Your task to perform on an android device: Open calendar and show me the fourth week of next month Image 0: 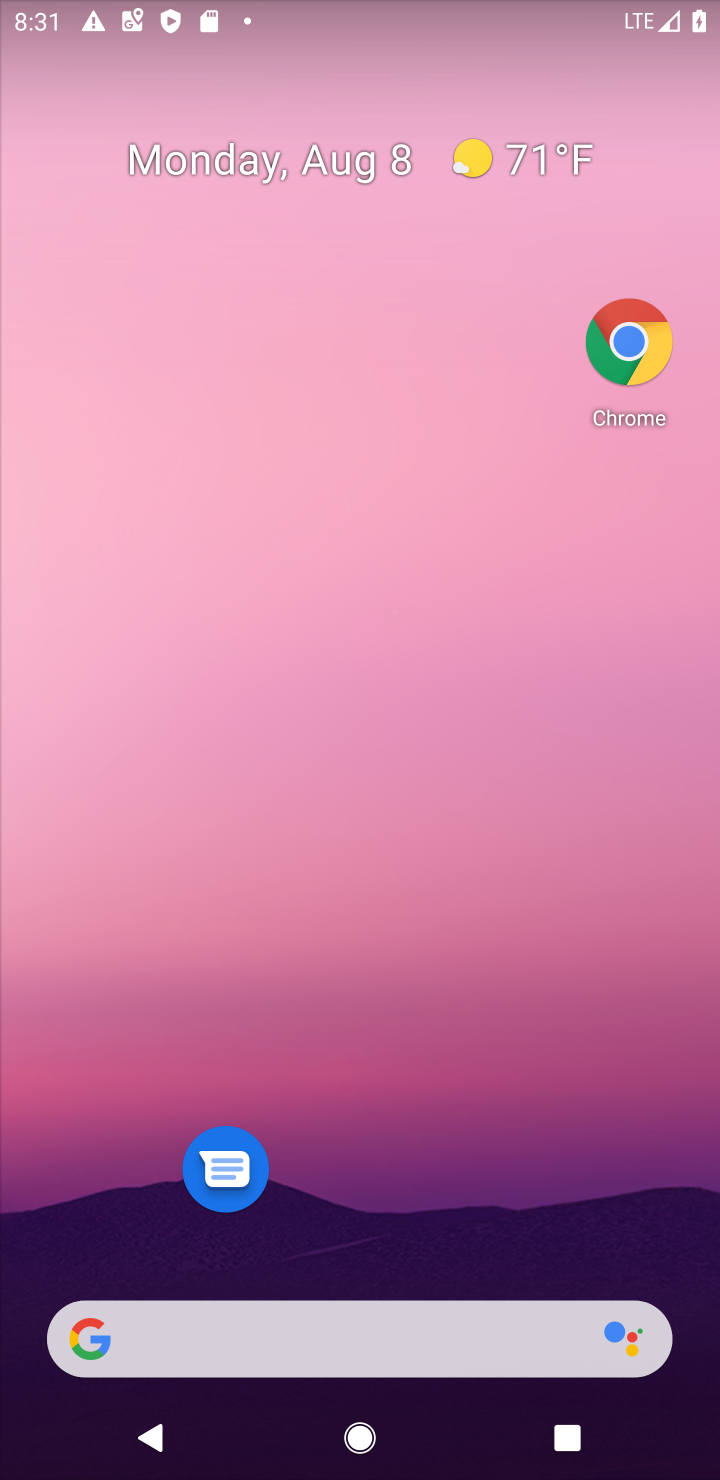
Step 0: drag from (401, 1243) to (507, 14)
Your task to perform on an android device: Open calendar and show me the fourth week of next month Image 1: 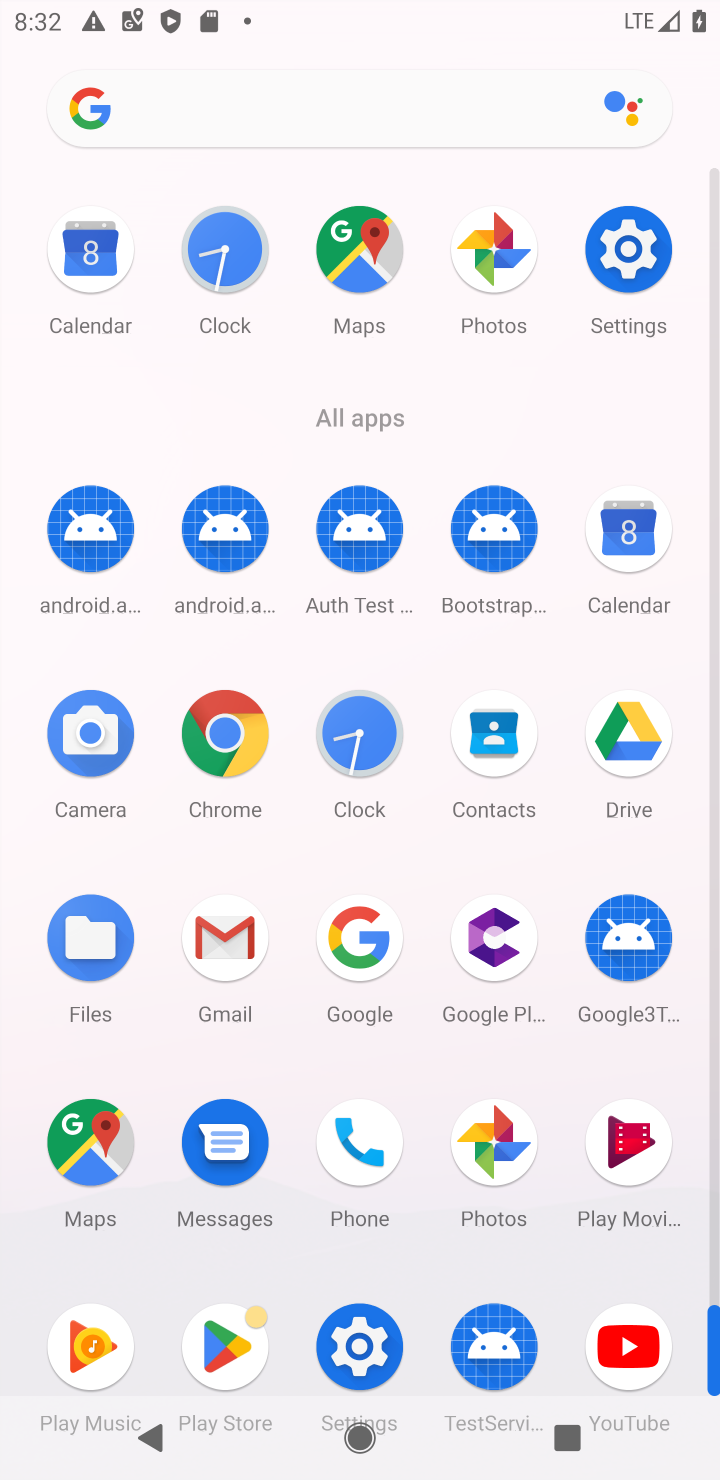
Step 1: click (83, 277)
Your task to perform on an android device: Open calendar and show me the fourth week of next month Image 2: 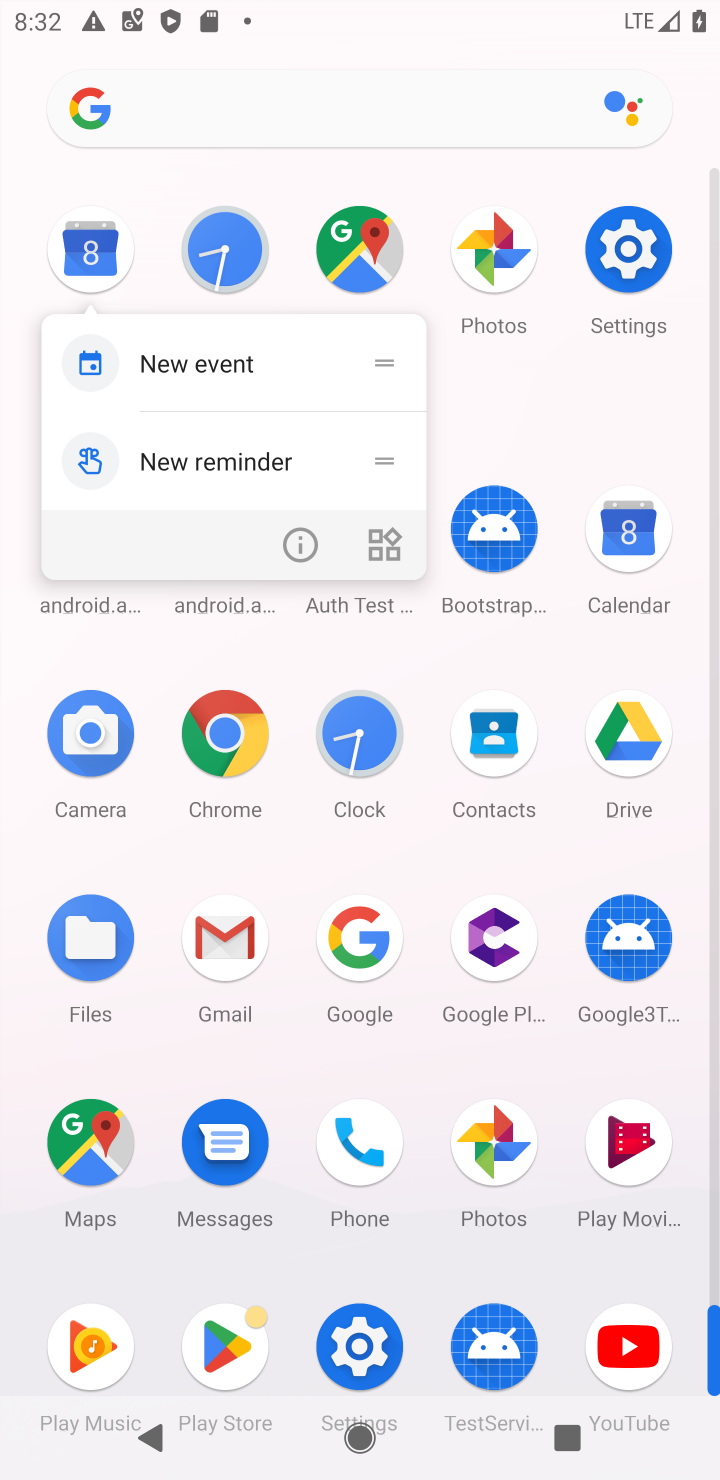
Step 2: click (638, 524)
Your task to perform on an android device: Open calendar and show me the fourth week of next month Image 3: 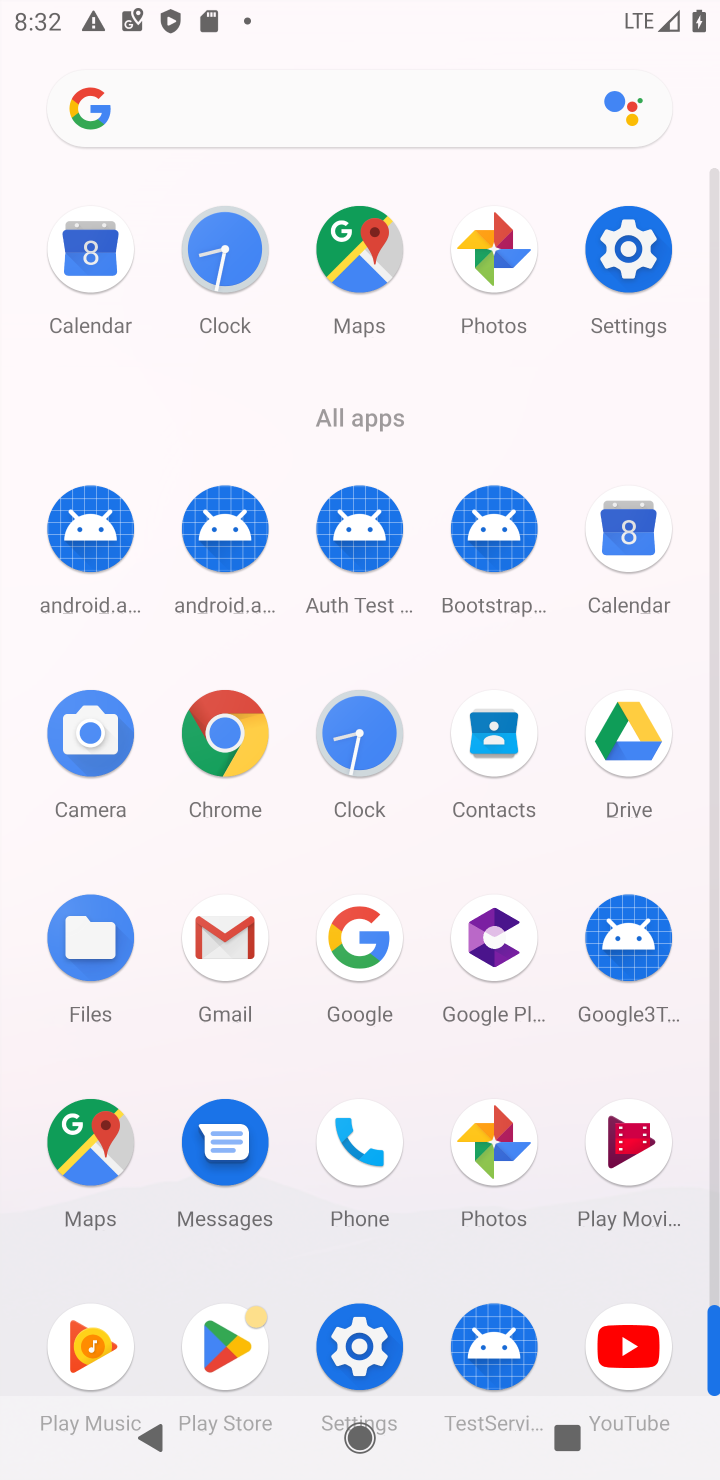
Step 3: click (636, 528)
Your task to perform on an android device: Open calendar and show me the fourth week of next month Image 4: 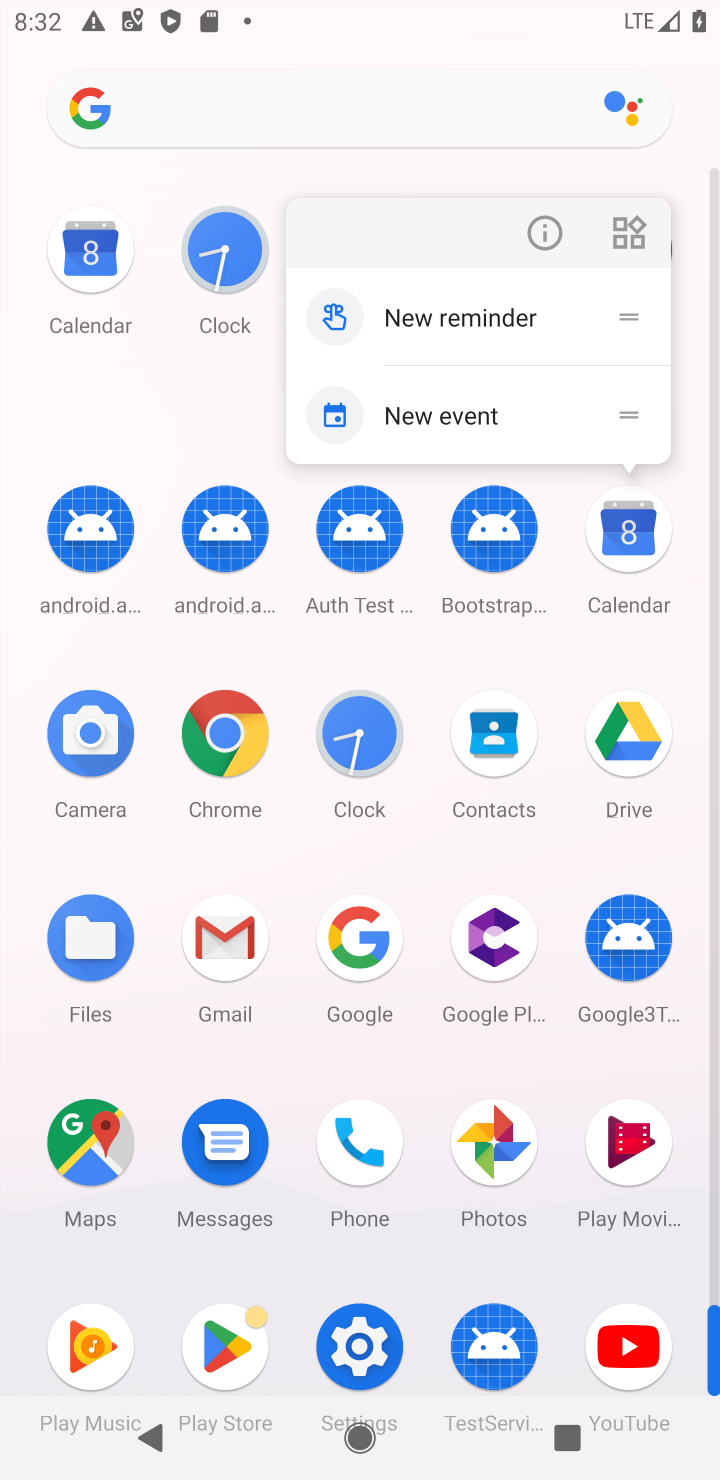
Step 4: click (633, 541)
Your task to perform on an android device: Open calendar and show me the fourth week of next month Image 5: 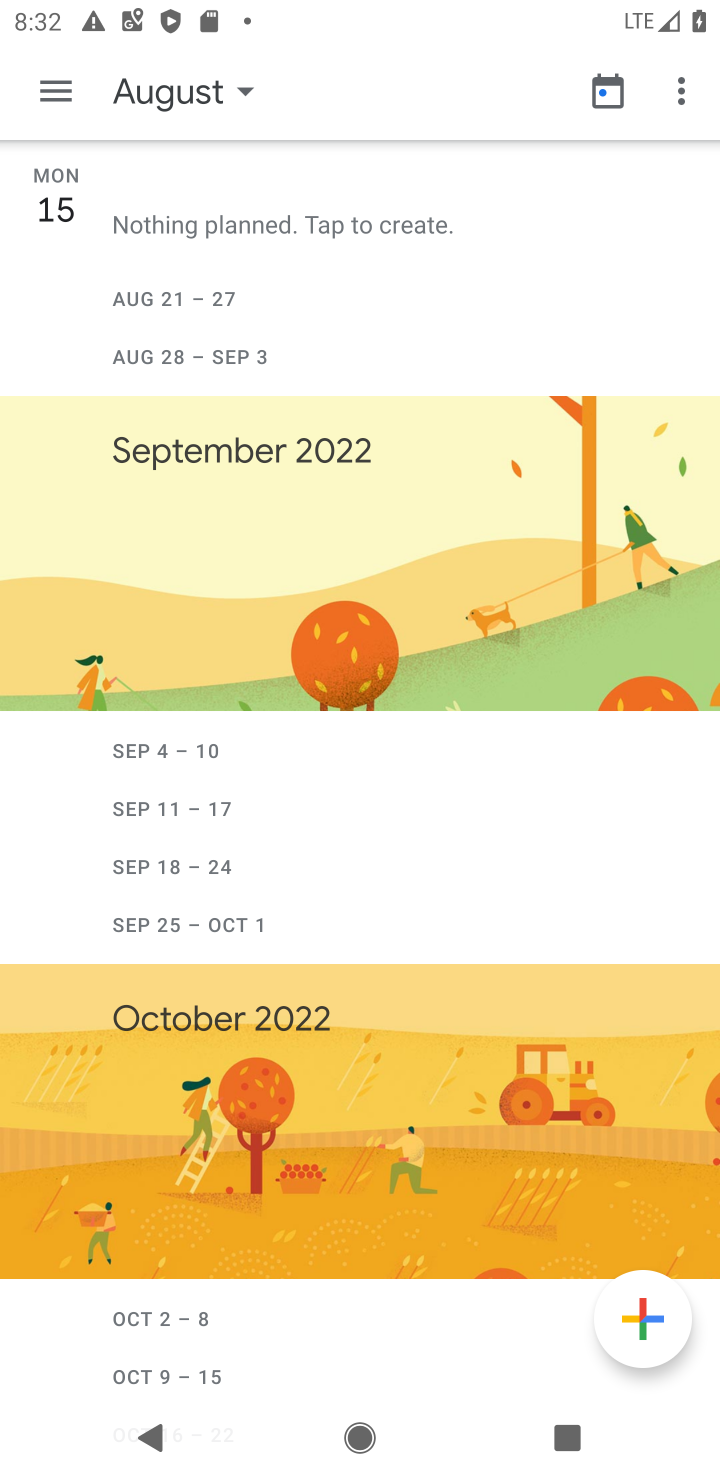
Step 5: click (205, 99)
Your task to perform on an android device: Open calendar and show me the fourth week of next month Image 6: 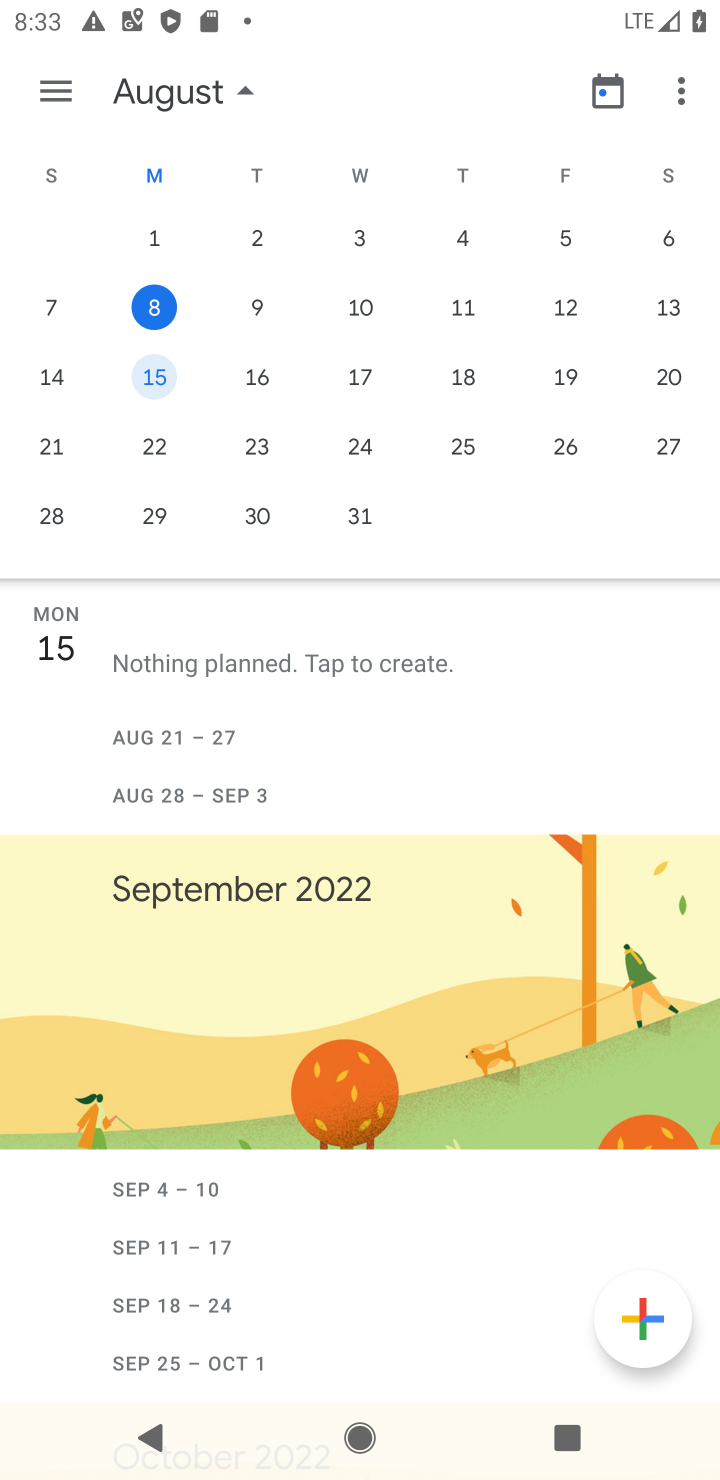
Step 6: click (153, 454)
Your task to perform on an android device: Open calendar and show me the fourth week of next month Image 7: 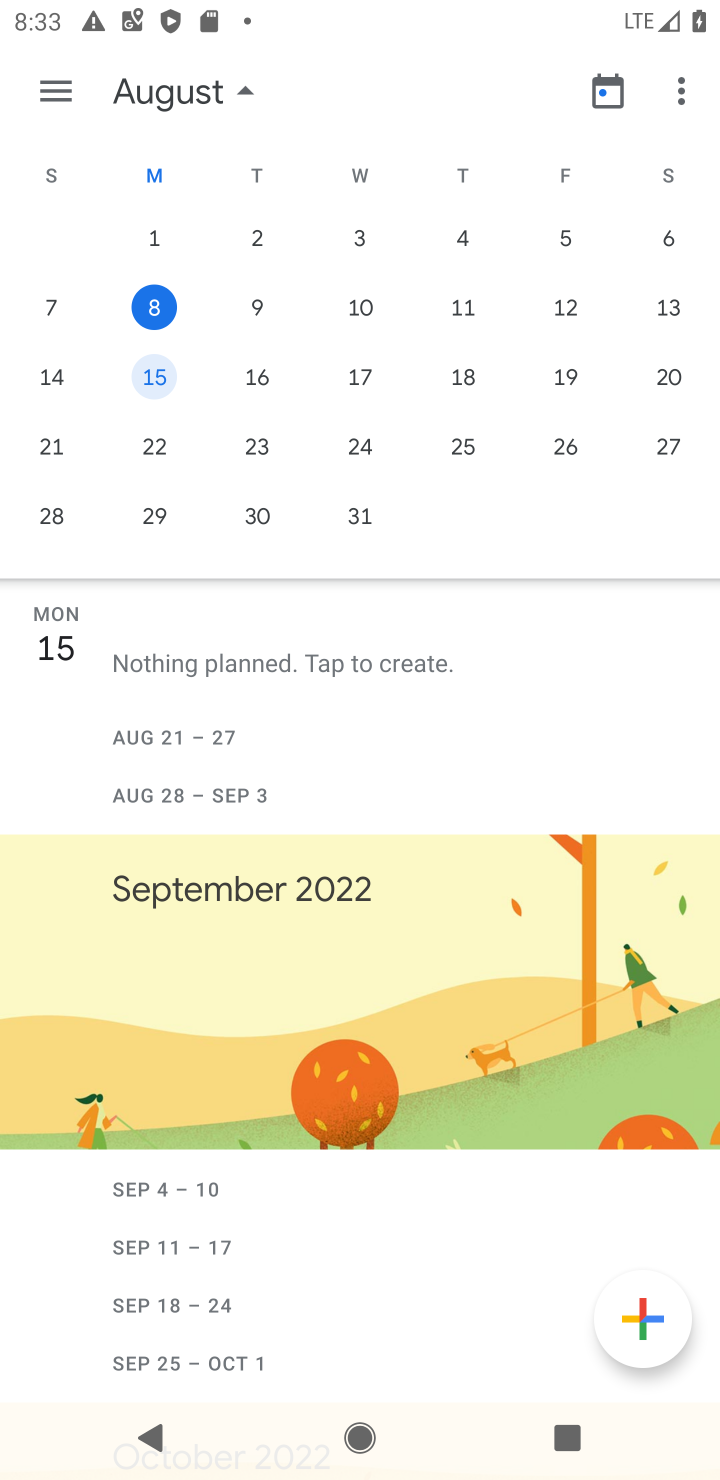
Step 7: click (162, 447)
Your task to perform on an android device: Open calendar and show me the fourth week of next month Image 8: 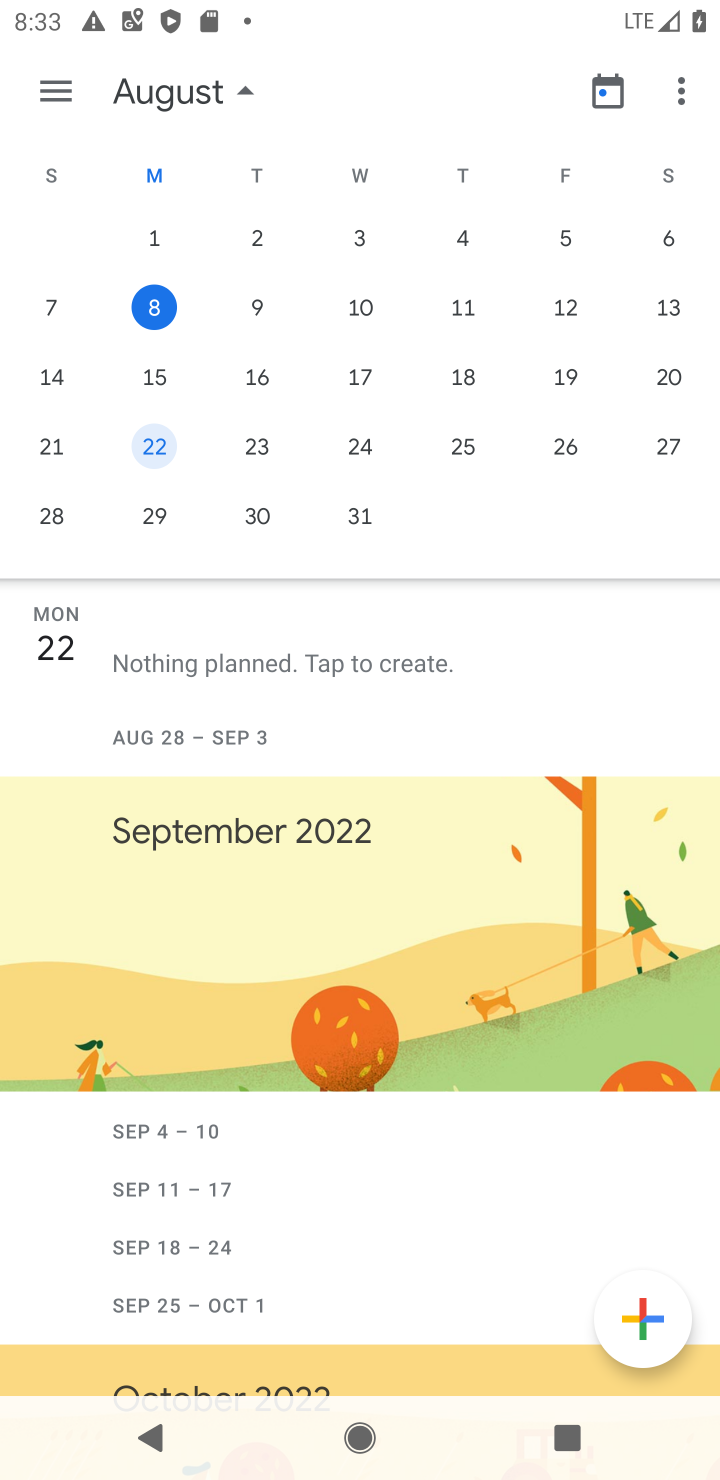
Step 8: task complete